Your task to perform on an android device: Go to calendar. Show me events next week Image 0: 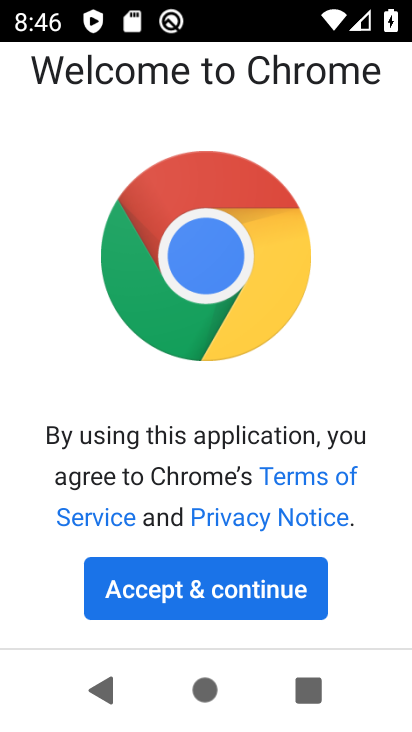
Step 0: press home button
Your task to perform on an android device: Go to calendar. Show me events next week Image 1: 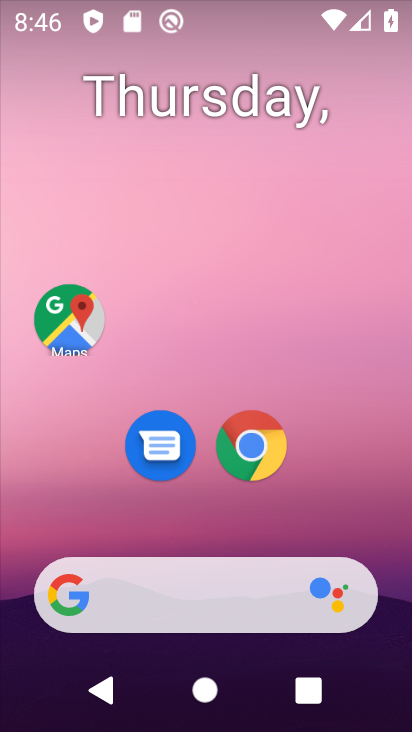
Step 1: drag from (222, 530) to (258, 102)
Your task to perform on an android device: Go to calendar. Show me events next week Image 2: 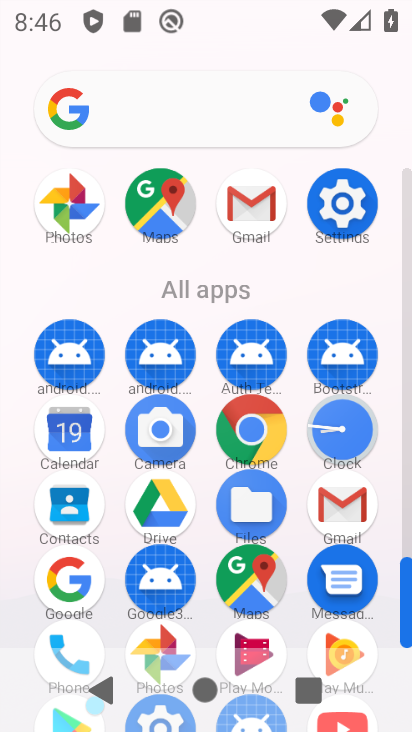
Step 2: click (68, 431)
Your task to perform on an android device: Go to calendar. Show me events next week Image 3: 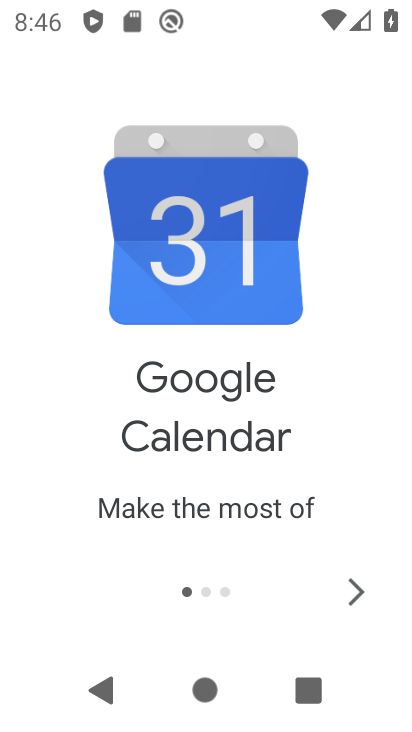
Step 3: click (352, 584)
Your task to perform on an android device: Go to calendar. Show me events next week Image 4: 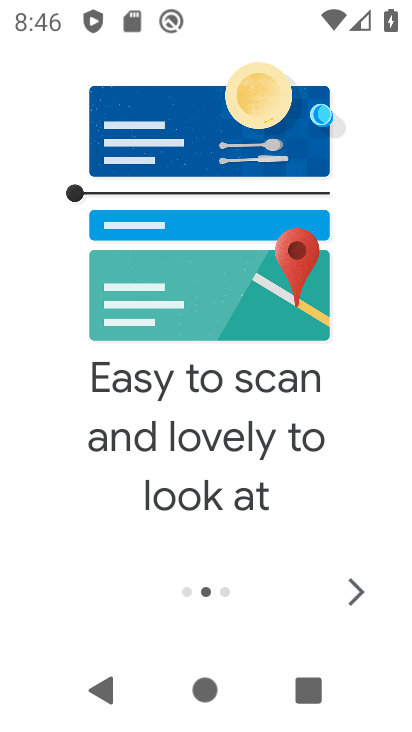
Step 4: click (363, 600)
Your task to perform on an android device: Go to calendar. Show me events next week Image 5: 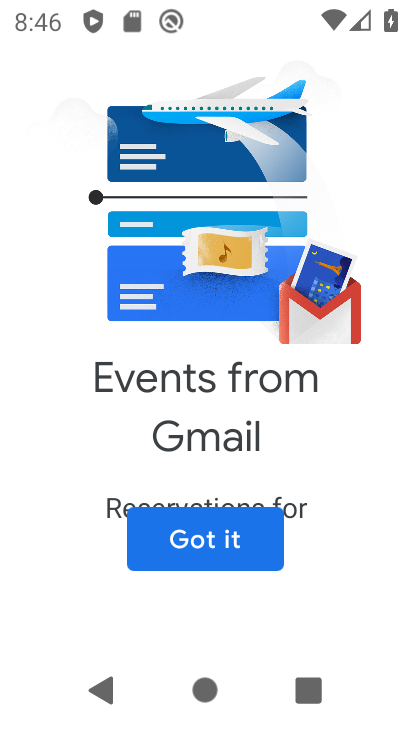
Step 5: click (223, 549)
Your task to perform on an android device: Go to calendar. Show me events next week Image 6: 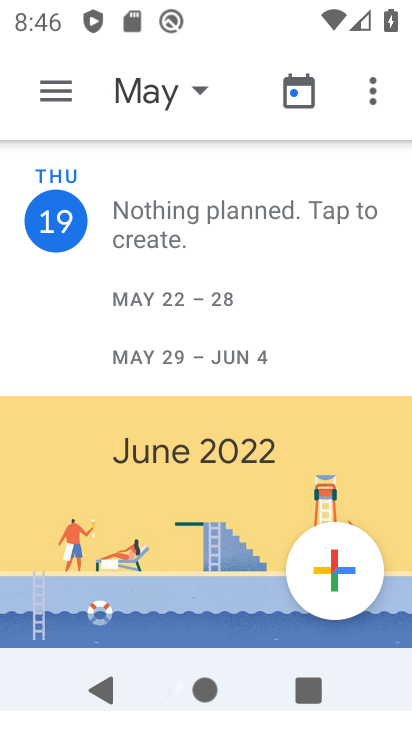
Step 6: click (60, 102)
Your task to perform on an android device: Go to calendar. Show me events next week Image 7: 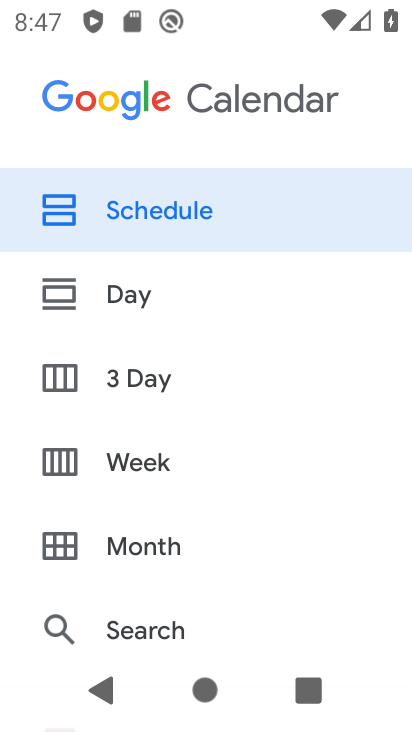
Step 7: click (143, 460)
Your task to perform on an android device: Go to calendar. Show me events next week Image 8: 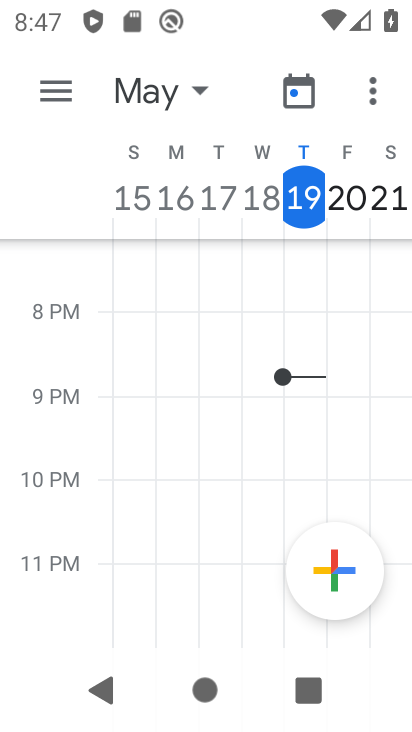
Step 8: drag from (355, 191) to (5, 104)
Your task to perform on an android device: Go to calendar. Show me events next week Image 9: 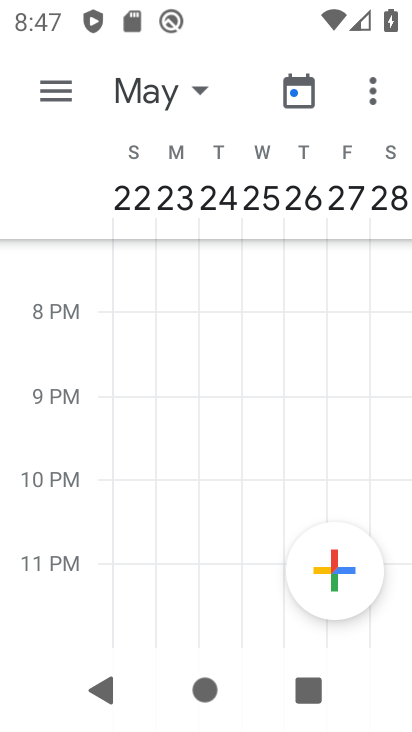
Step 9: click (53, 95)
Your task to perform on an android device: Go to calendar. Show me events next week Image 10: 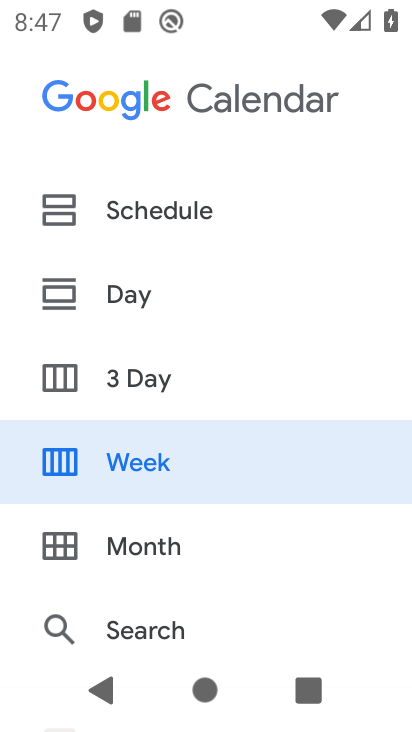
Step 10: task complete